Your task to perform on an android device: open chrome and create a bookmark for the current page Image 0: 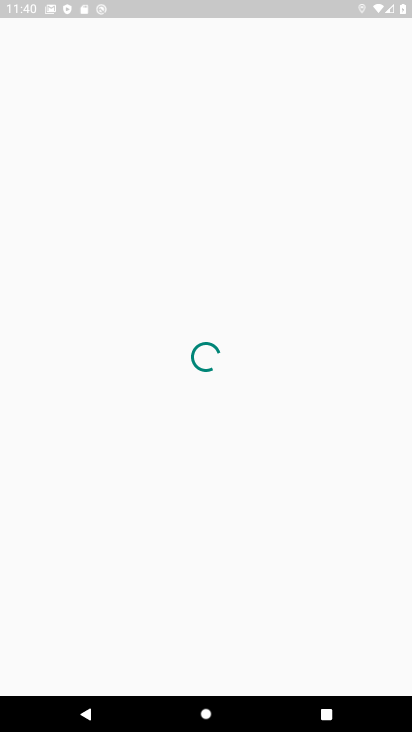
Step 0: press home button
Your task to perform on an android device: open chrome and create a bookmark for the current page Image 1: 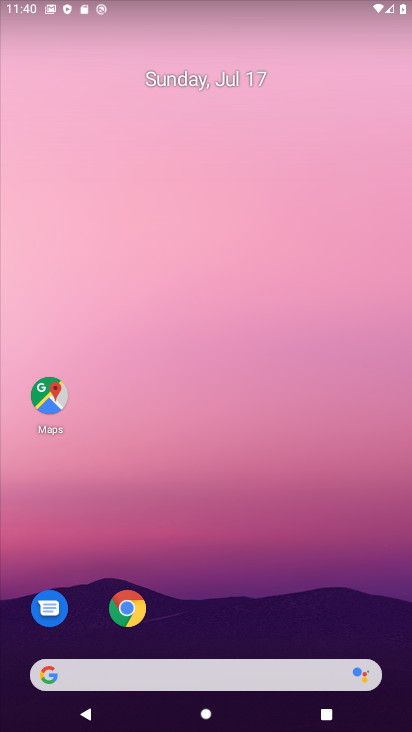
Step 1: drag from (200, 645) to (259, 91)
Your task to perform on an android device: open chrome and create a bookmark for the current page Image 2: 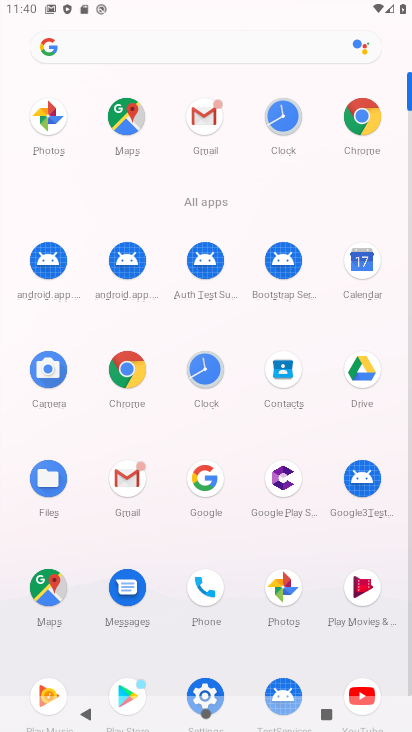
Step 2: click (100, 374)
Your task to perform on an android device: open chrome and create a bookmark for the current page Image 3: 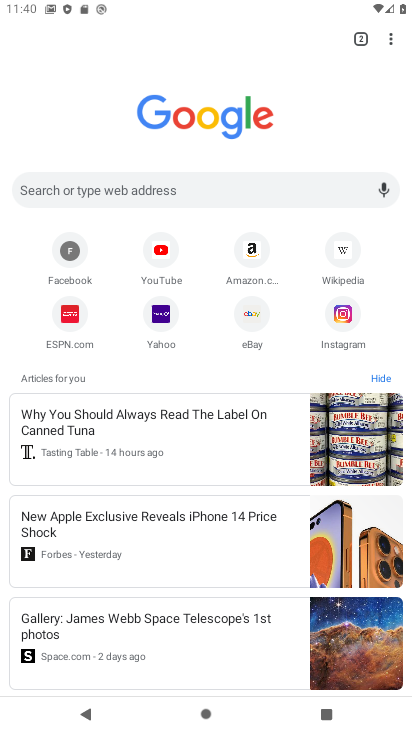
Step 3: task complete